Your task to perform on an android device: change keyboard looks Image 0: 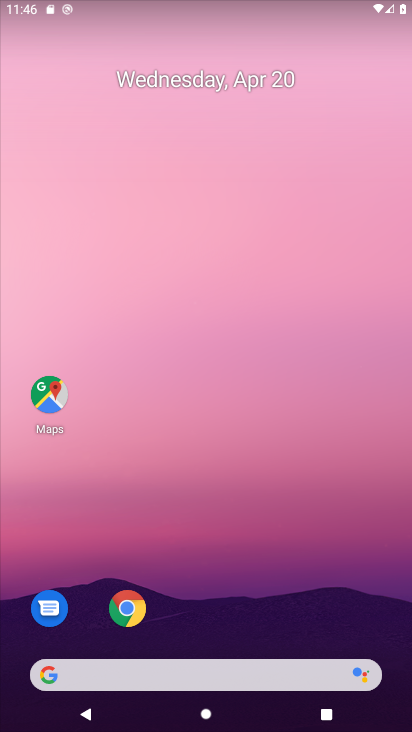
Step 0: drag from (205, 378) to (243, 135)
Your task to perform on an android device: change keyboard looks Image 1: 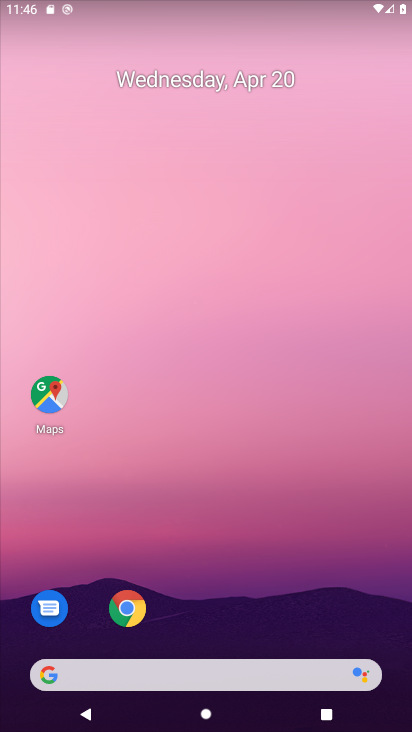
Step 1: drag from (205, 622) to (247, 11)
Your task to perform on an android device: change keyboard looks Image 2: 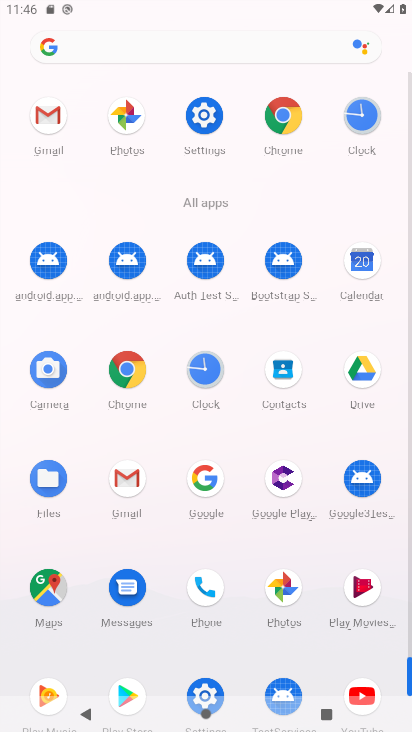
Step 2: click (203, 115)
Your task to perform on an android device: change keyboard looks Image 3: 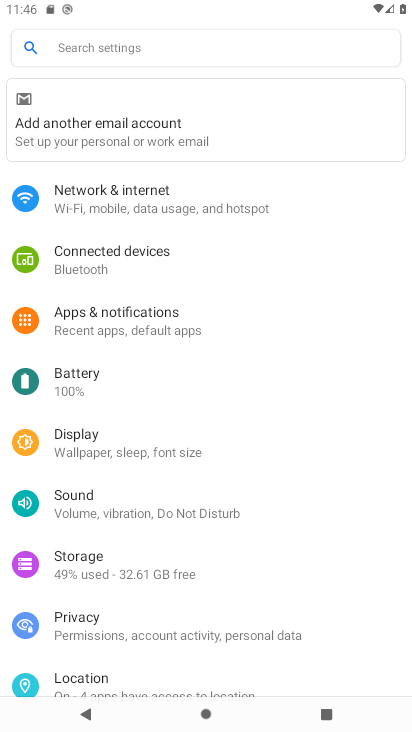
Step 3: drag from (117, 611) to (132, 217)
Your task to perform on an android device: change keyboard looks Image 4: 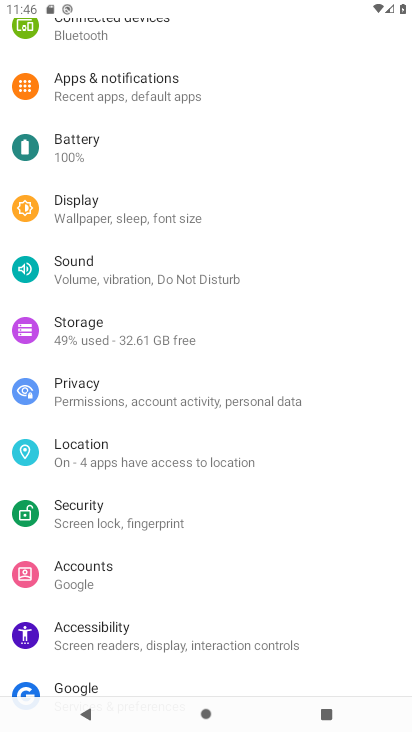
Step 4: drag from (170, 652) to (184, 334)
Your task to perform on an android device: change keyboard looks Image 5: 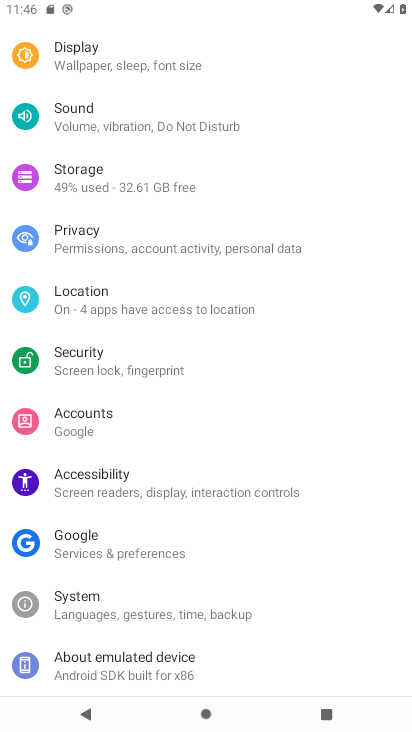
Step 5: click (131, 599)
Your task to perform on an android device: change keyboard looks Image 6: 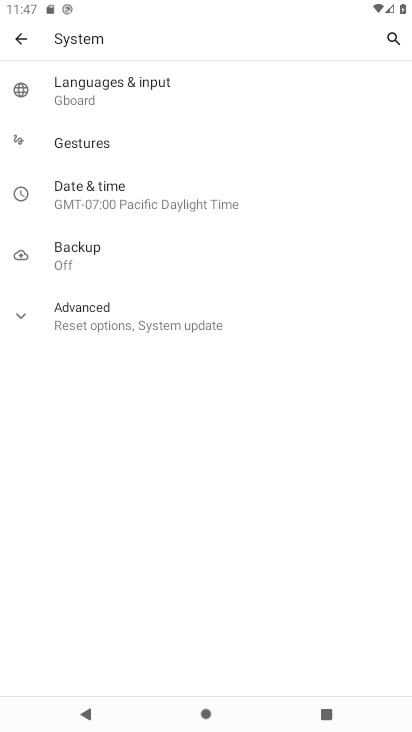
Step 6: click (176, 92)
Your task to perform on an android device: change keyboard looks Image 7: 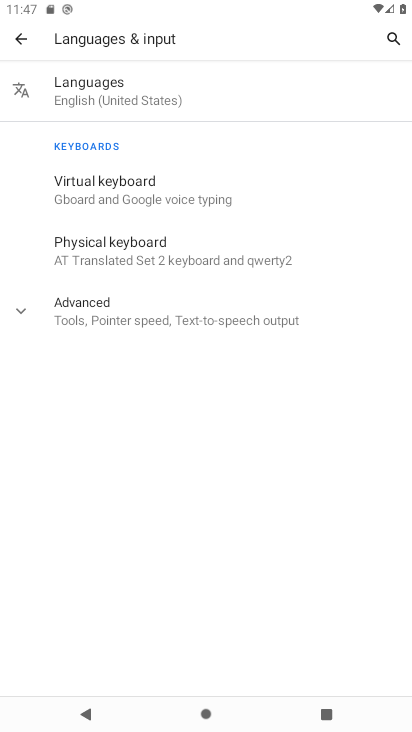
Step 7: click (113, 185)
Your task to perform on an android device: change keyboard looks Image 8: 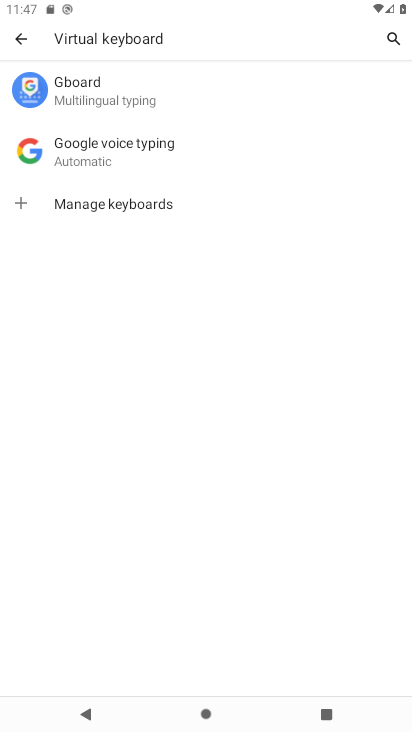
Step 8: click (137, 91)
Your task to perform on an android device: change keyboard looks Image 9: 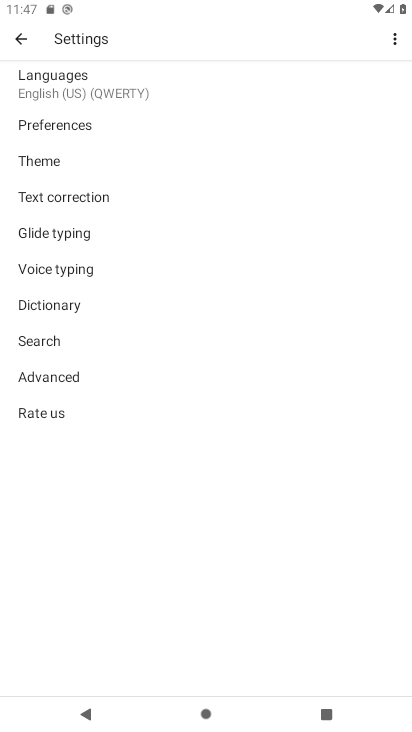
Step 9: click (54, 167)
Your task to perform on an android device: change keyboard looks Image 10: 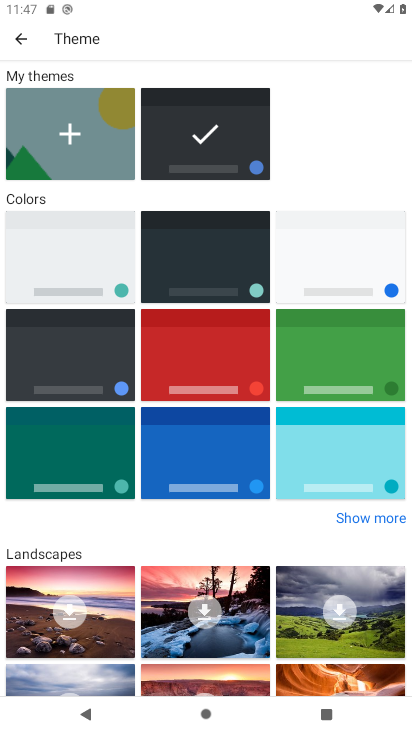
Step 10: click (249, 285)
Your task to perform on an android device: change keyboard looks Image 11: 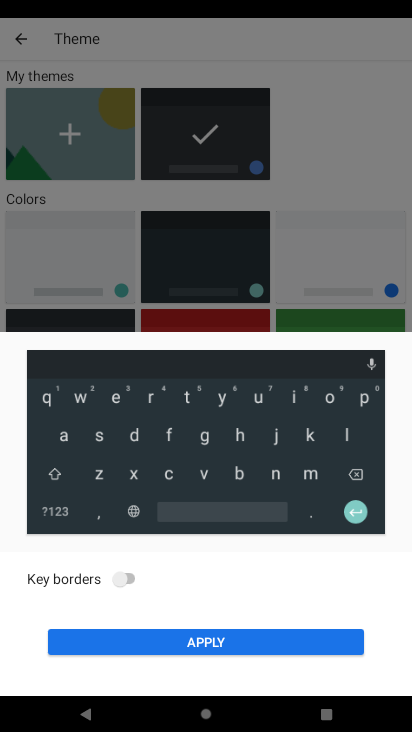
Step 11: click (154, 646)
Your task to perform on an android device: change keyboard looks Image 12: 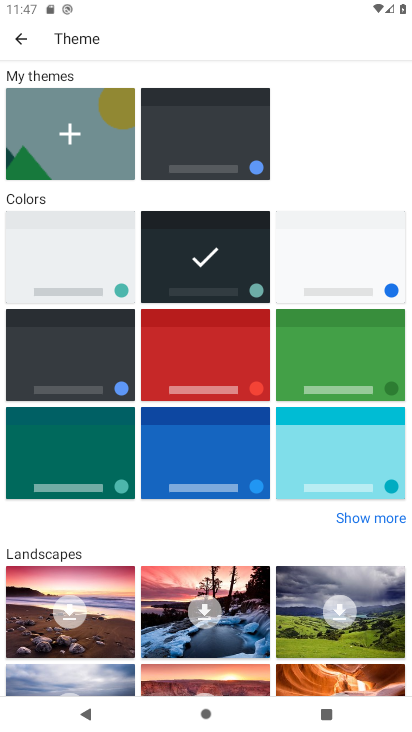
Step 12: task complete